Your task to perform on an android device: Open the stopwatch Image 0: 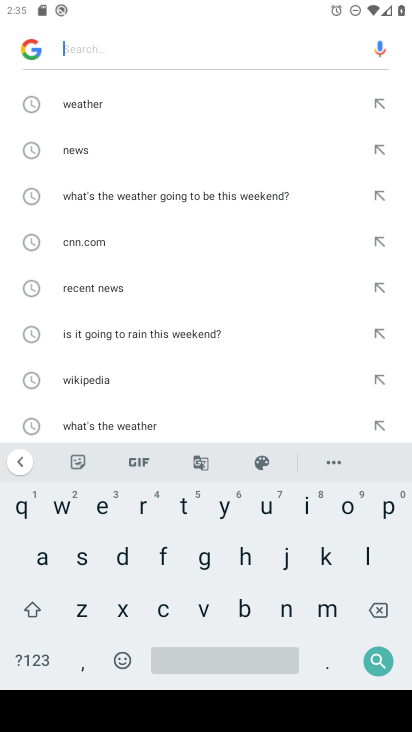
Step 0: press home button
Your task to perform on an android device: Open the stopwatch Image 1: 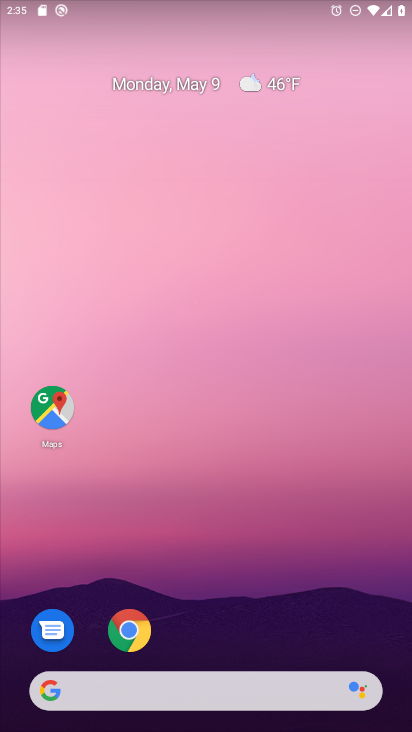
Step 1: drag from (309, 710) to (353, 286)
Your task to perform on an android device: Open the stopwatch Image 2: 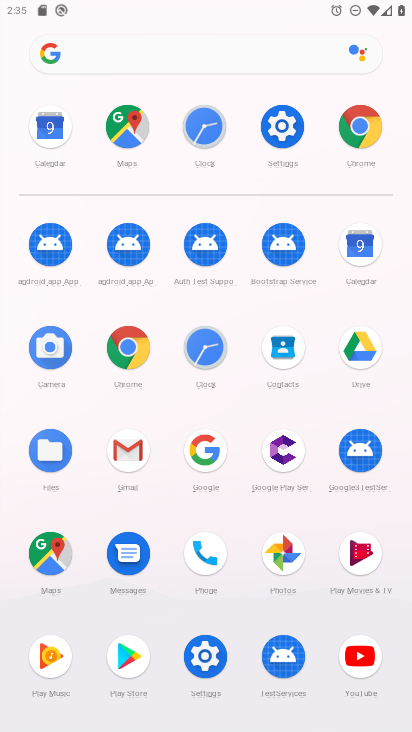
Step 2: click (197, 334)
Your task to perform on an android device: Open the stopwatch Image 3: 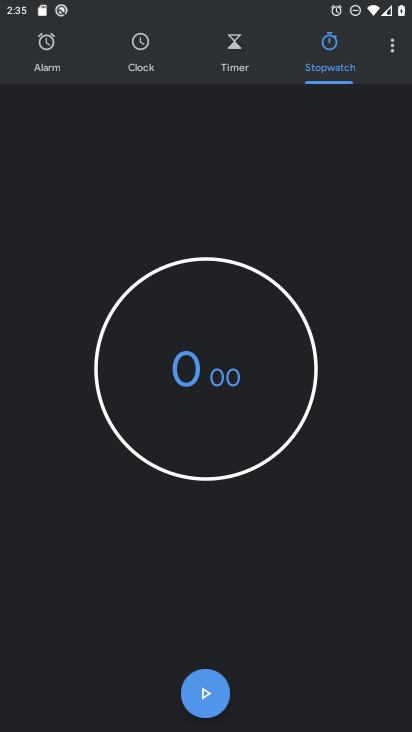
Step 3: click (192, 690)
Your task to perform on an android device: Open the stopwatch Image 4: 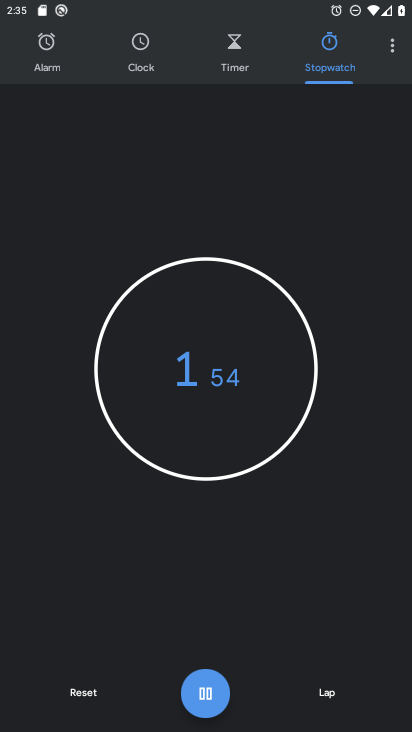
Step 4: task complete